Your task to perform on an android device: What is the capital of England? Image 0: 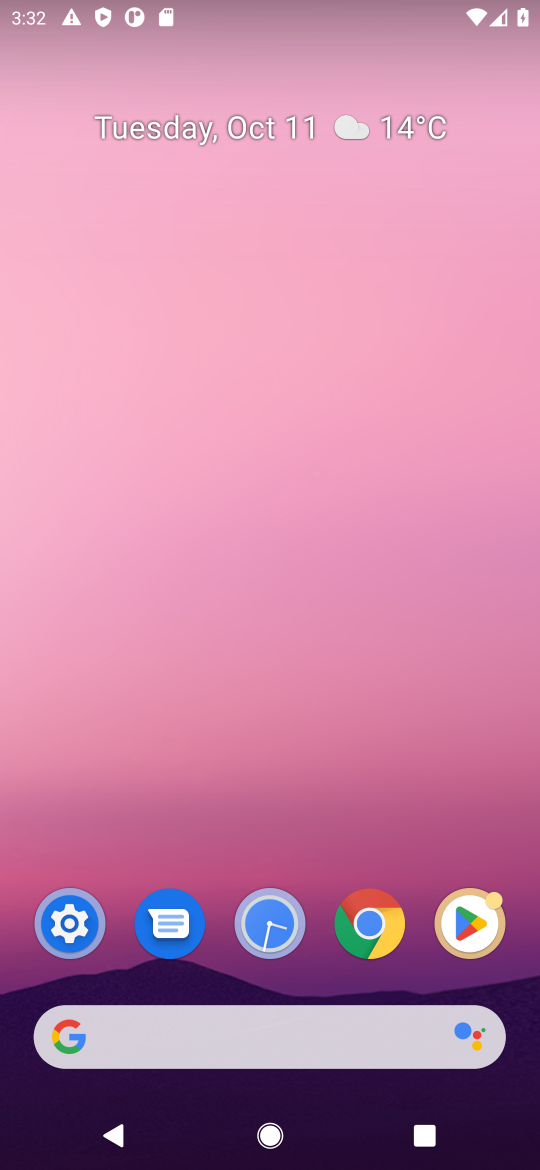
Step 0: drag from (248, 878) to (313, 15)
Your task to perform on an android device: What is the capital of England? Image 1: 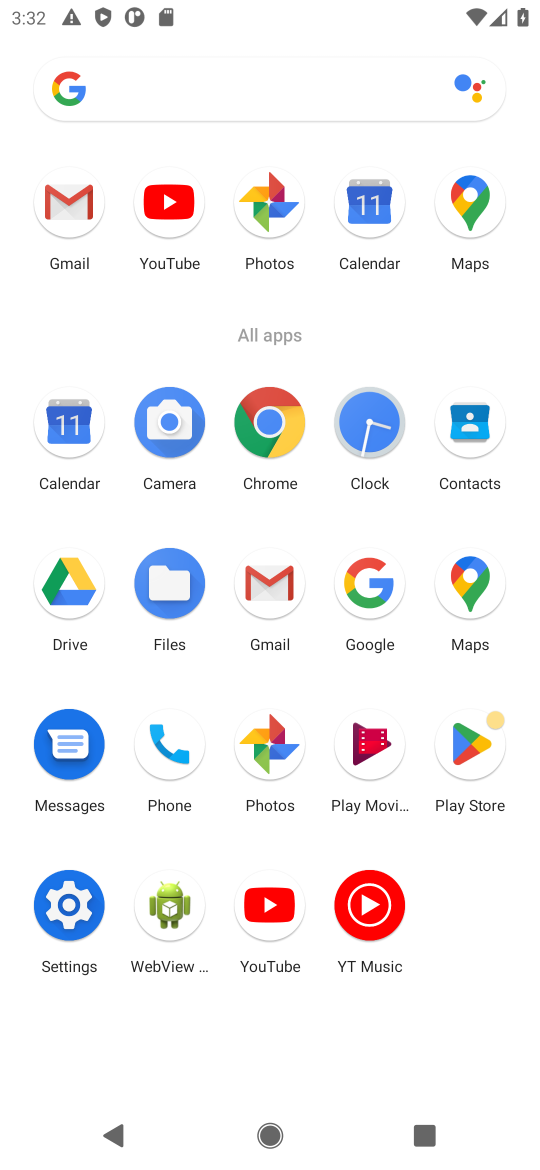
Step 1: click (365, 571)
Your task to perform on an android device: What is the capital of England? Image 2: 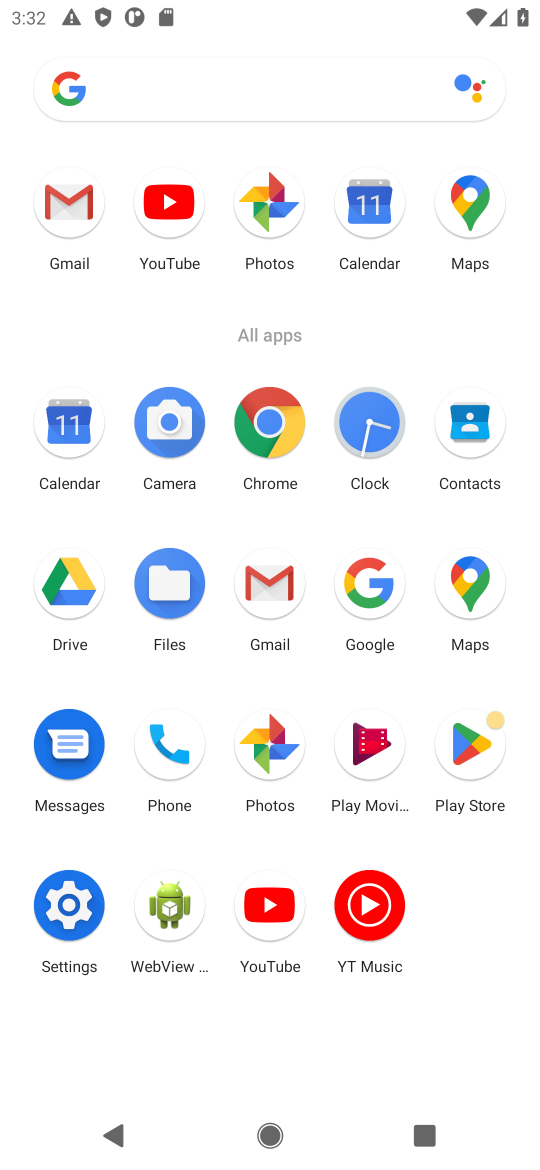
Step 2: click (381, 602)
Your task to perform on an android device: What is the capital of England? Image 3: 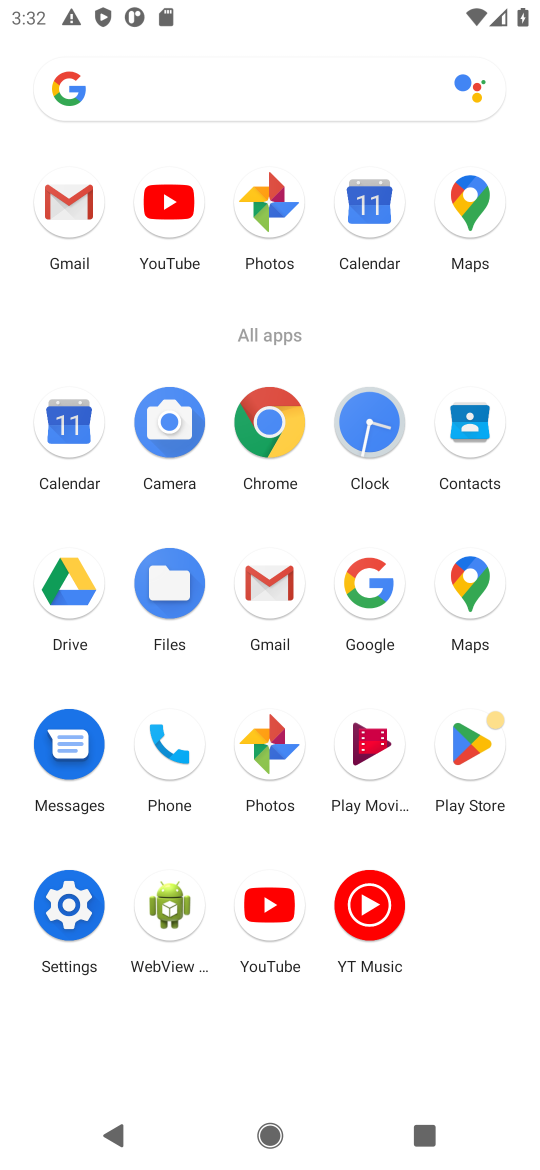
Step 3: click (381, 602)
Your task to perform on an android device: What is the capital of England? Image 4: 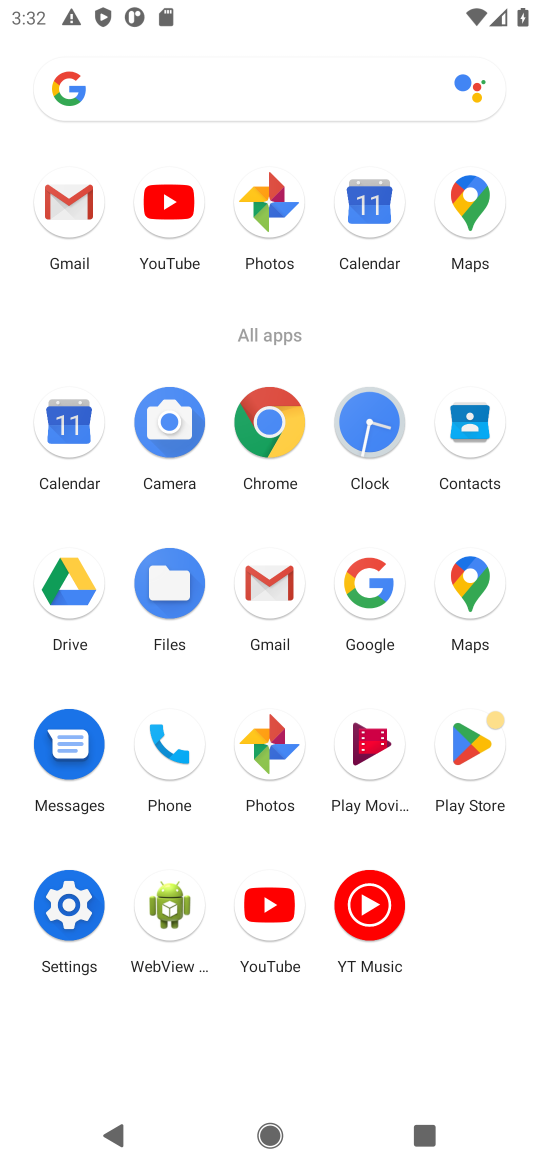
Step 4: click (364, 578)
Your task to perform on an android device: What is the capital of England? Image 5: 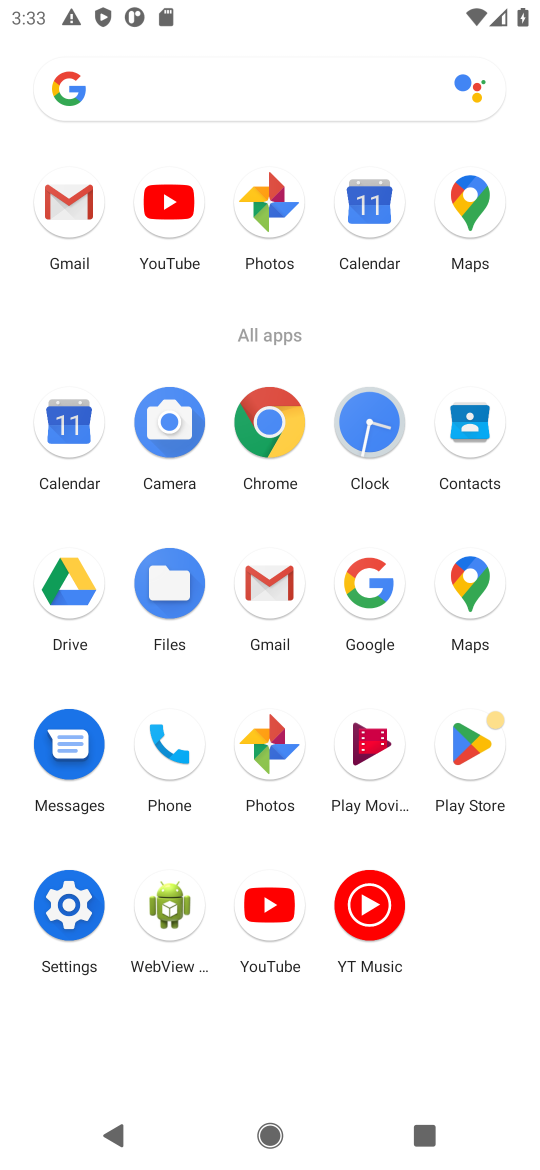
Step 5: click (364, 578)
Your task to perform on an android device: What is the capital of England? Image 6: 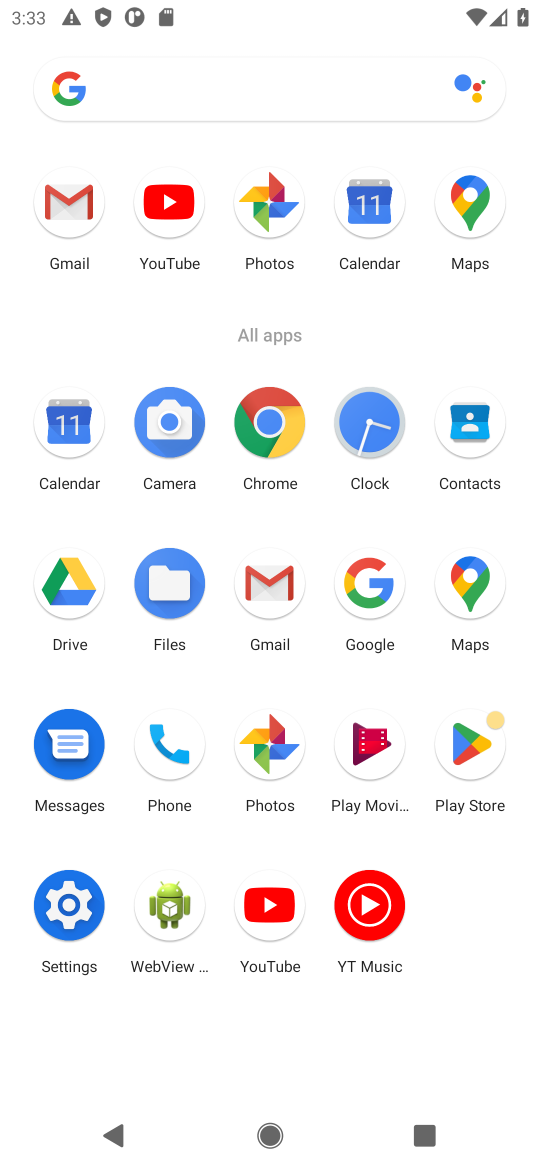
Step 6: click (268, 584)
Your task to perform on an android device: What is the capital of England? Image 7: 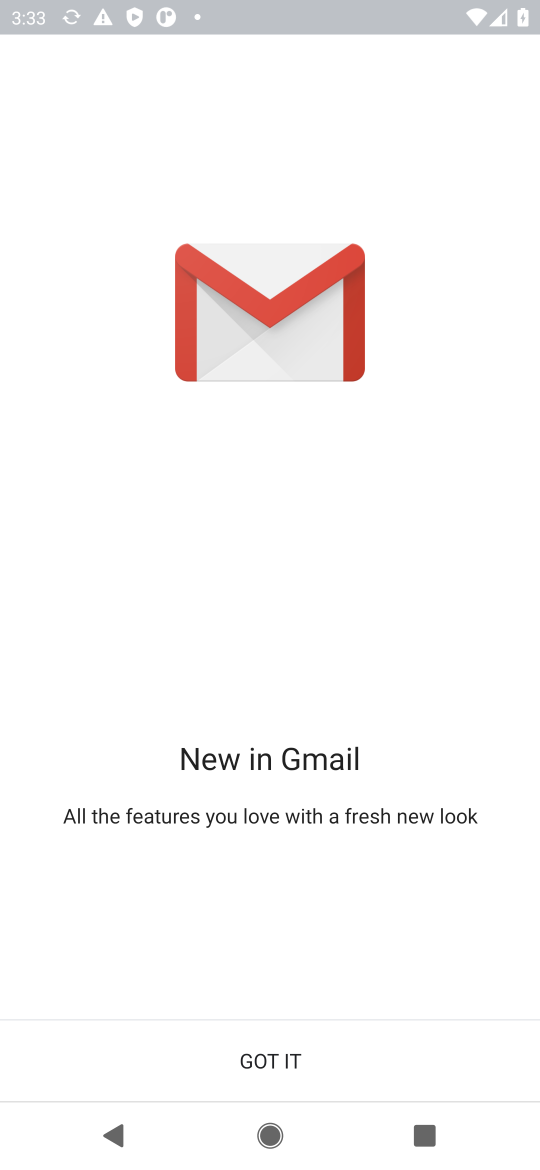
Step 7: press home button
Your task to perform on an android device: What is the capital of England? Image 8: 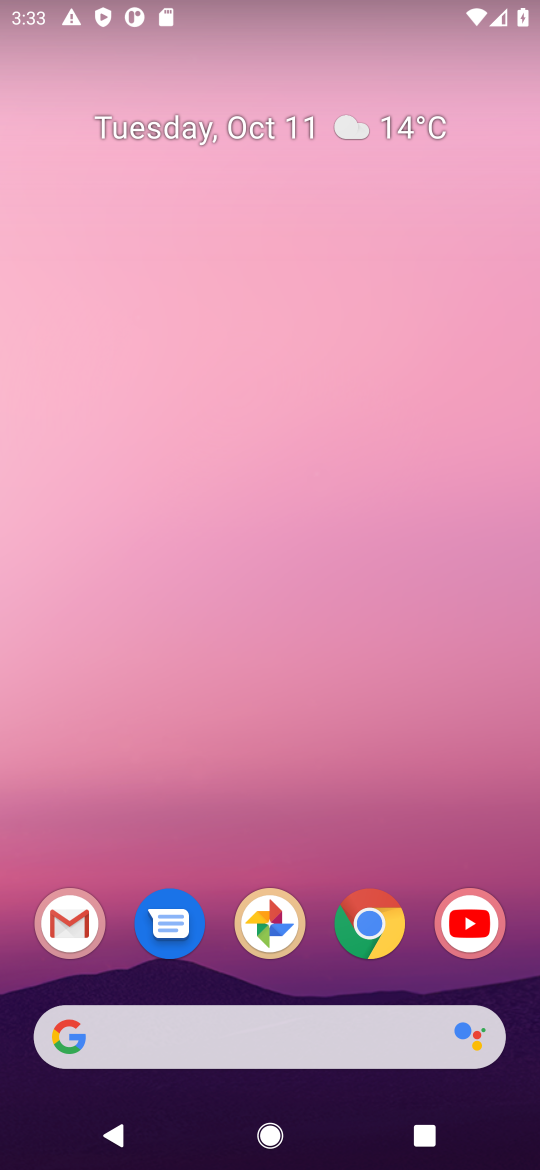
Step 8: click (372, 918)
Your task to perform on an android device: What is the capital of England? Image 9: 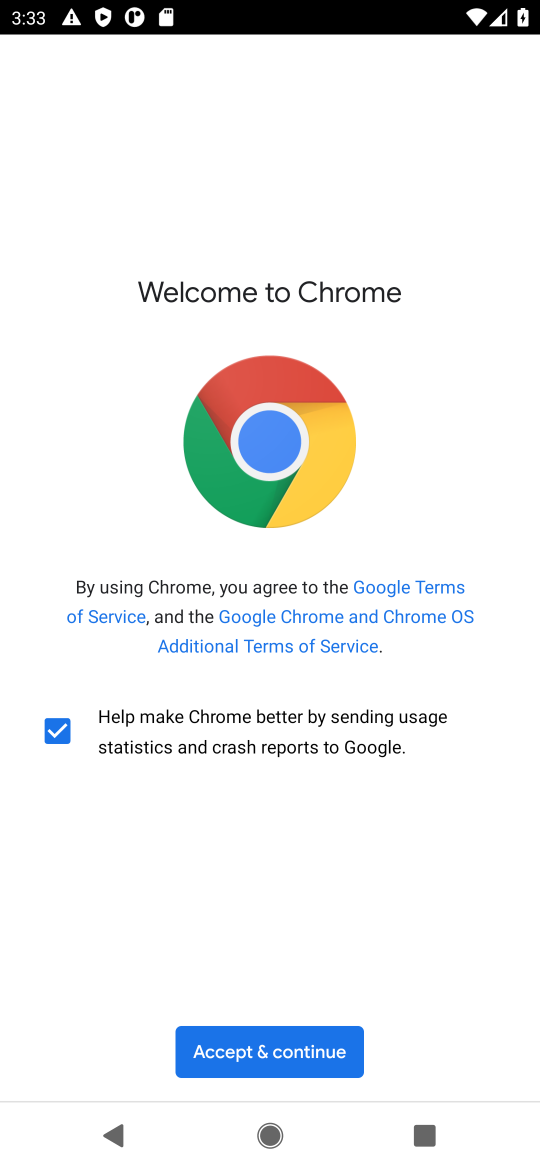
Step 9: click (284, 1038)
Your task to perform on an android device: What is the capital of England? Image 10: 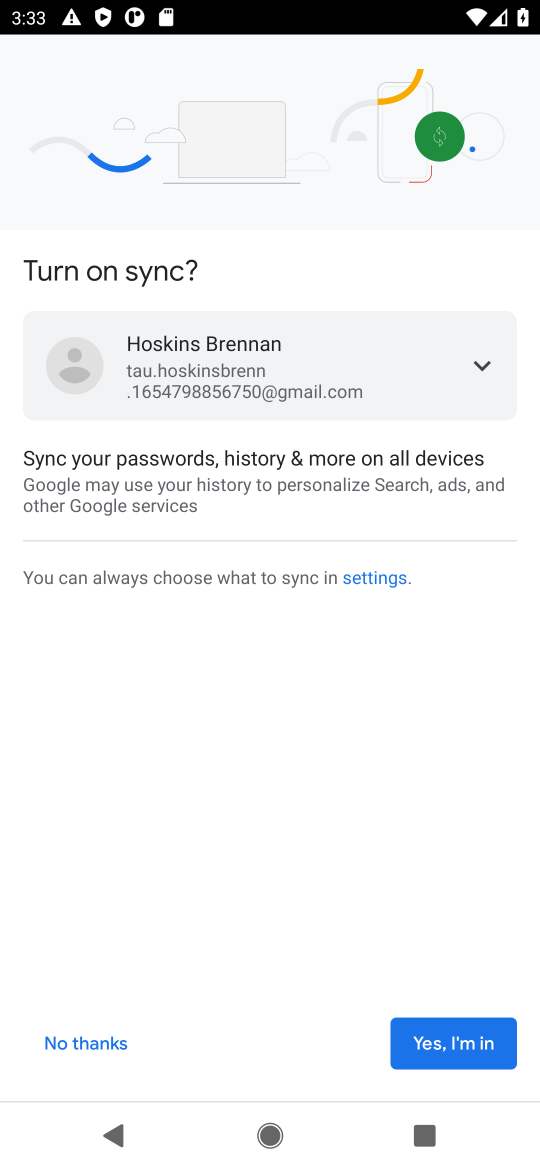
Step 10: click (459, 1043)
Your task to perform on an android device: What is the capital of England? Image 11: 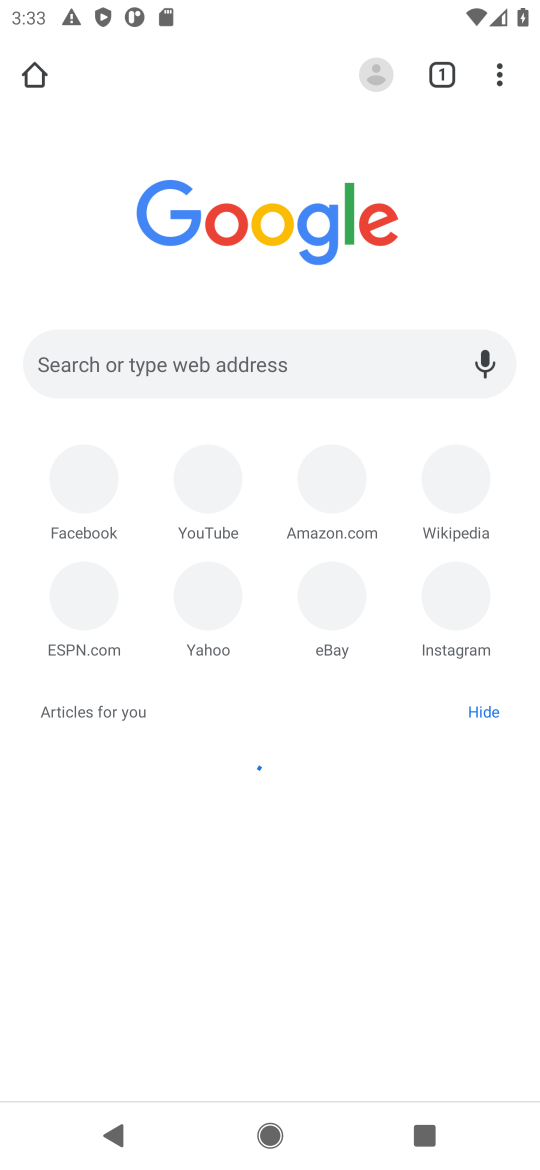
Step 11: click (369, 356)
Your task to perform on an android device: What is the capital of England? Image 12: 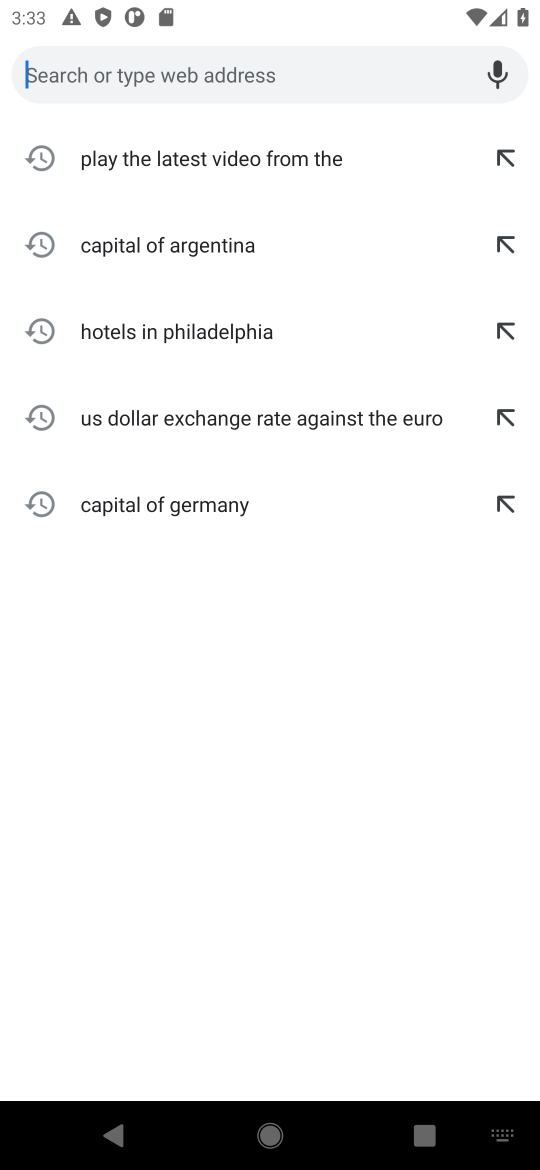
Step 12: type "What is the capital of England?"
Your task to perform on an android device: What is the capital of England? Image 13: 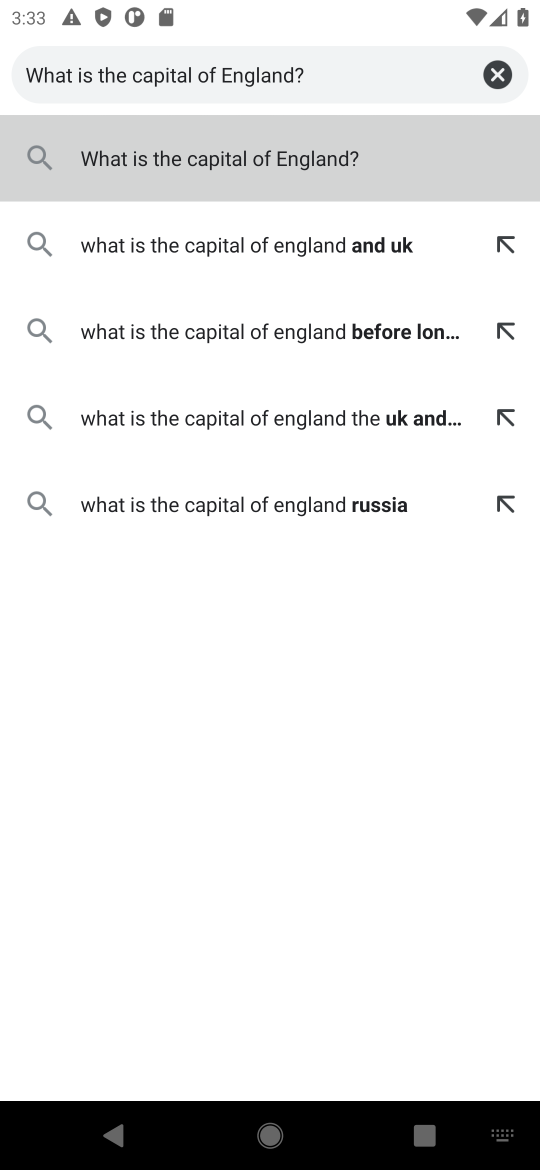
Step 13: click (176, 163)
Your task to perform on an android device: What is the capital of England? Image 14: 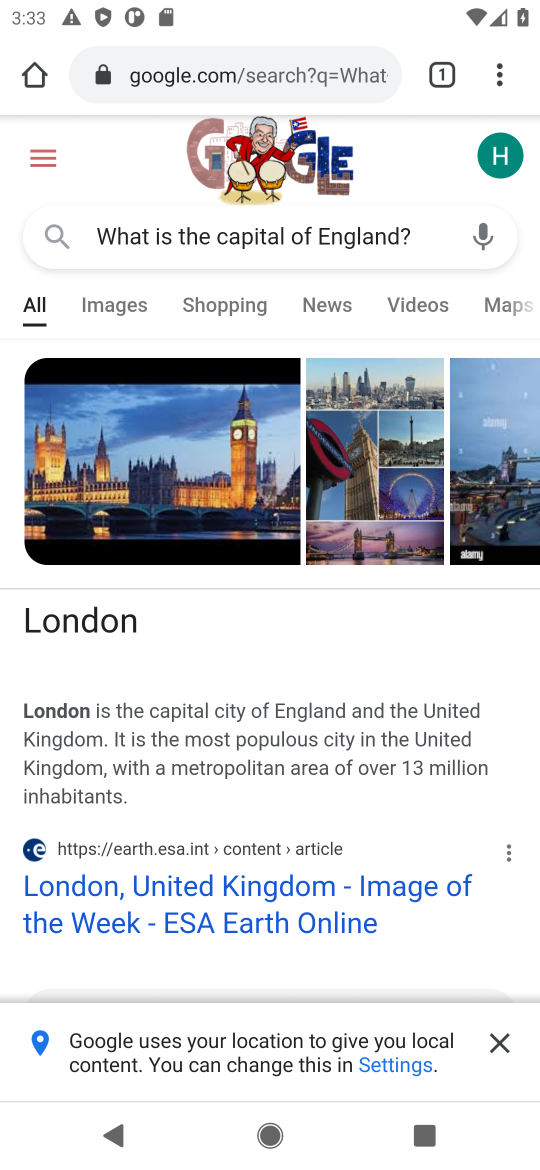
Step 14: task complete